Your task to perform on an android device: Open eBay Image 0: 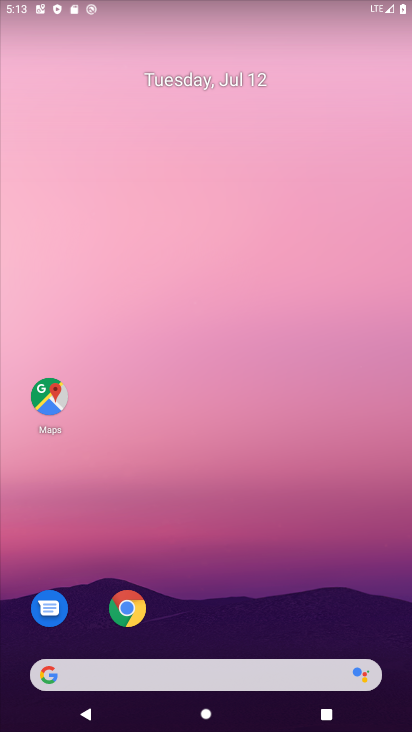
Step 0: click (125, 604)
Your task to perform on an android device: Open eBay Image 1: 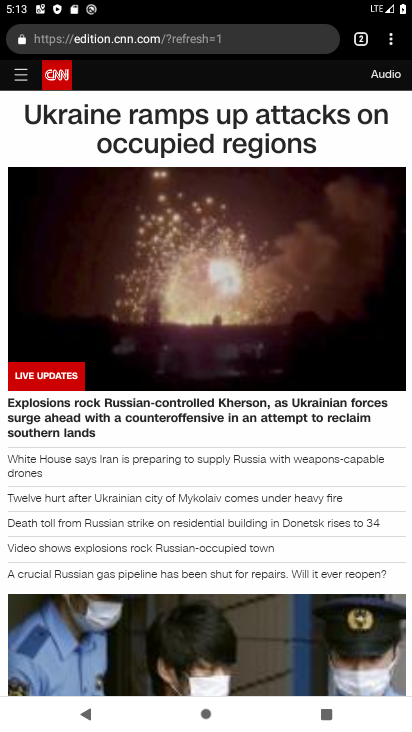
Step 1: click (255, 45)
Your task to perform on an android device: Open eBay Image 2: 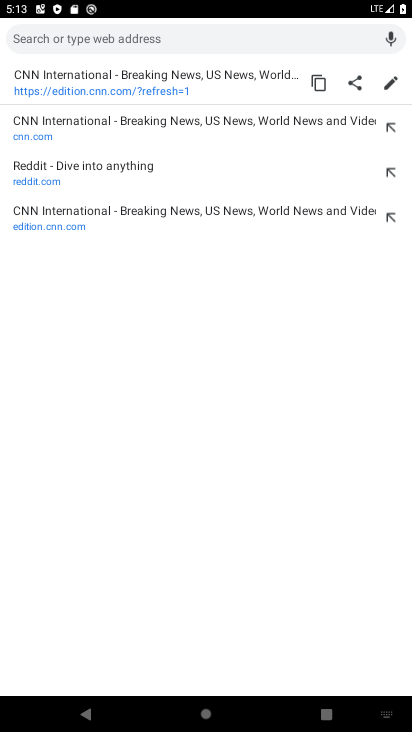
Step 2: type "ebay"
Your task to perform on an android device: Open eBay Image 3: 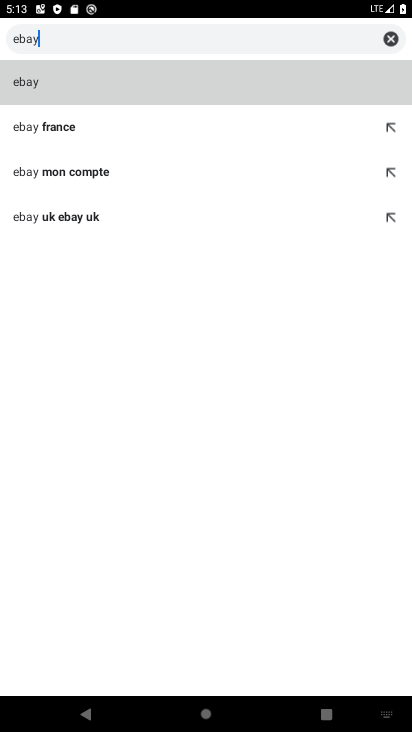
Step 3: click (179, 90)
Your task to perform on an android device: Open eBay Image 4: 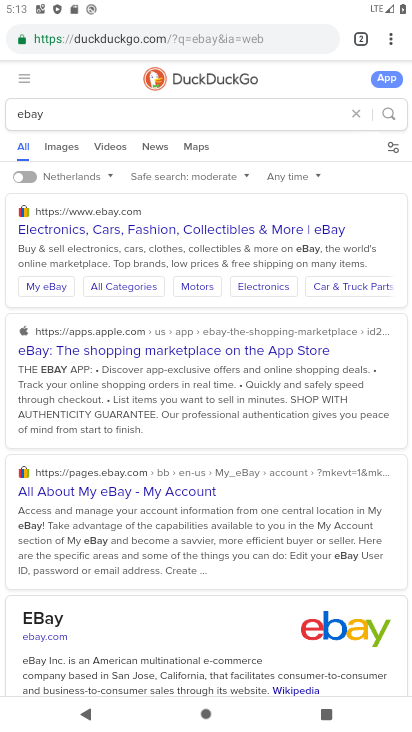
Step 4: click (74, 354)
Your task to perform on an android device: Open eBay Image 5: 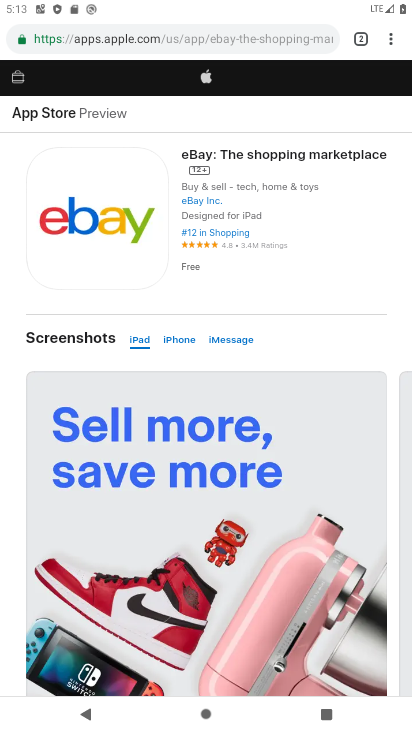
Step 5: task complete